Your task to perform on an android device: Open privacy settings Image 0: 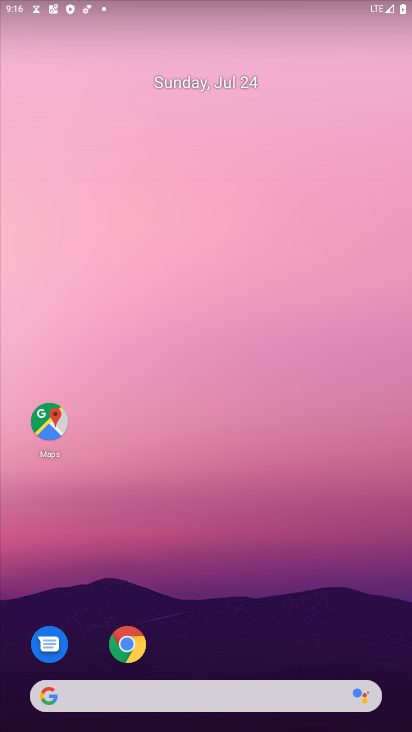
Step 0: drag from (232, 631) to (207, 90)
Your task to perform on an android device: Open privacy settings Image 1: 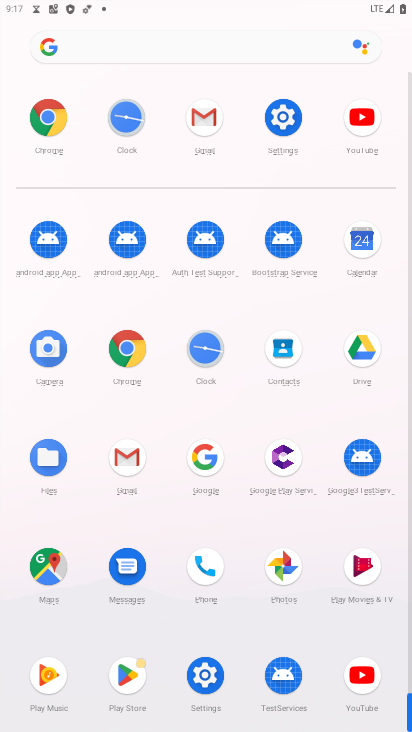
Step 1: click (205, 686)
Your task to perform on an android device: Open privacy settings Image 2: 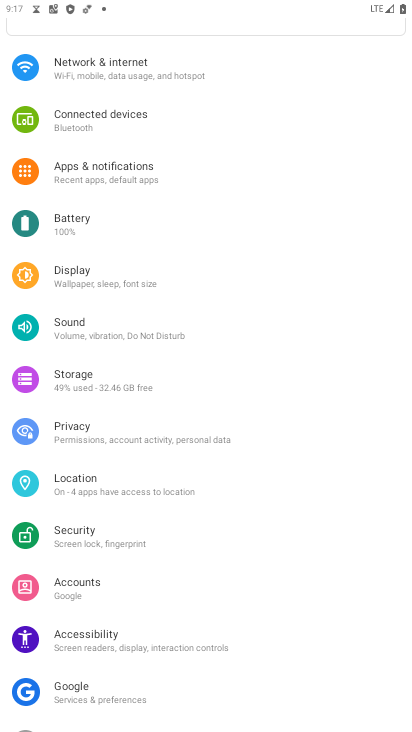
Step 2: click (78, 433)
Your task to perform on an android device: Open privacy settings Image 3: 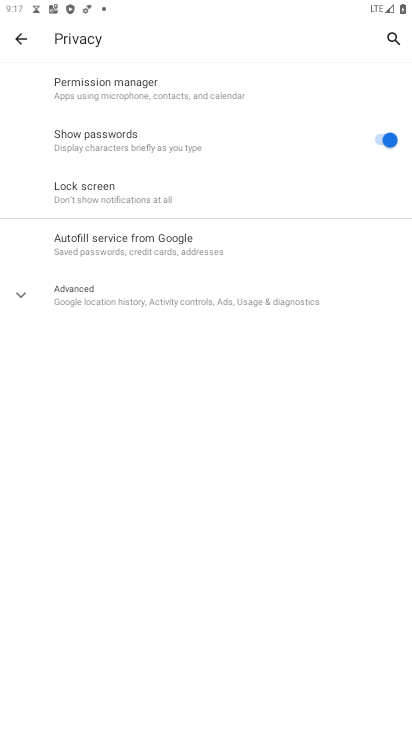
Step 3: task complete